Your task to perform on an android device: open device folders in google photos Image 0: 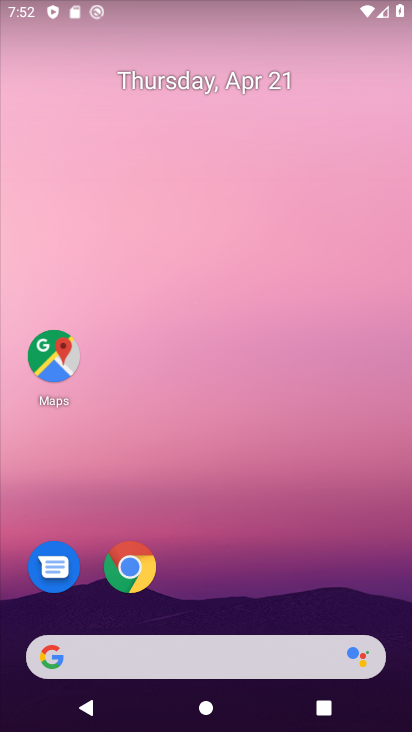
Step 0: drag from (210, 388) to (219, 132)
Your task to perform on an android device: open device folders in google photos Image 1: 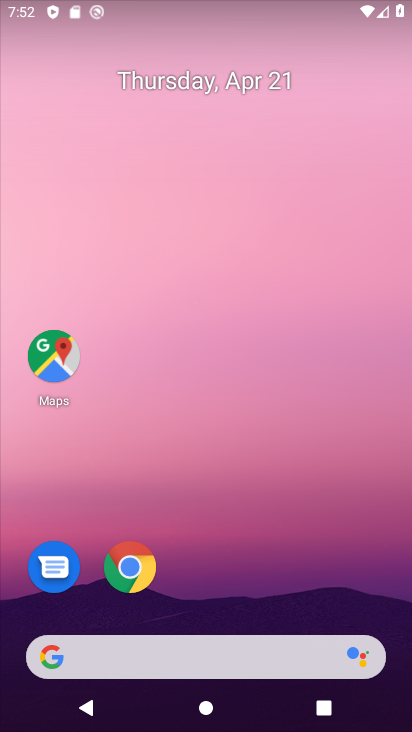
Step 1: drag from (192, 617) to (234, 50)
Your task to perform on an android device: open device folders in google photos Image 2: 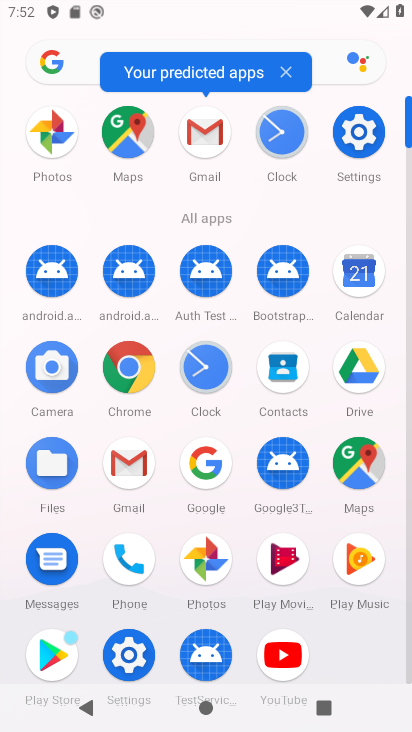
Step 2: click (54, 145)
Your task to perform on an android device: open device folders in google photos Image 3: 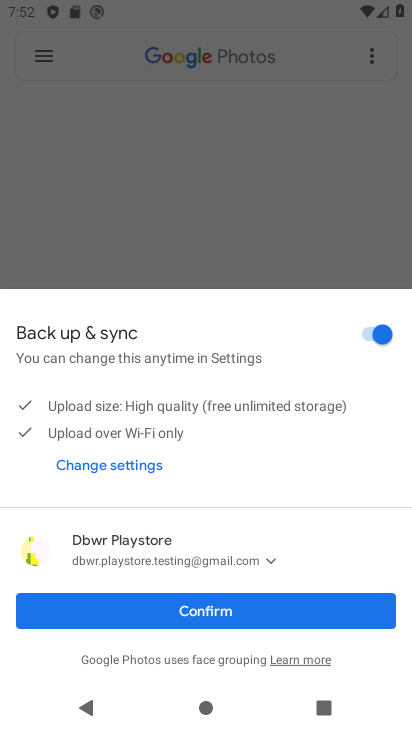
Step 3: click (231, 613)
Your task to perform on an android device: open device folders in google photos Image 4: 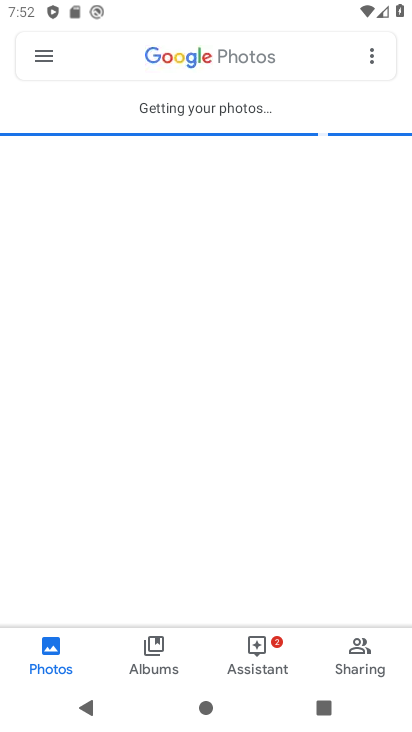
Step 4: click (38, 60)
Your task to perform on an android device: open device folders in google photos Image 5: 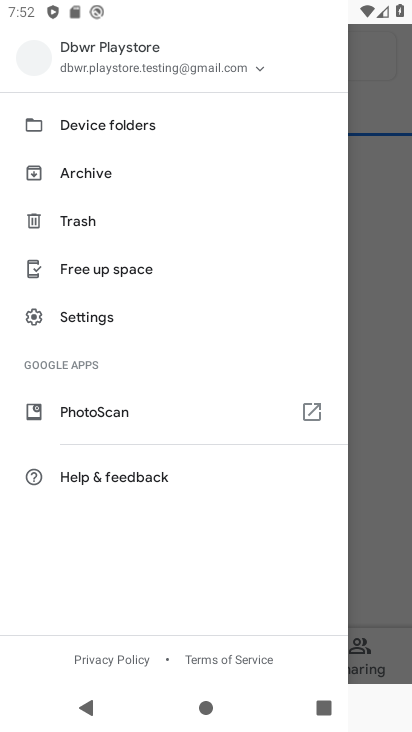
Step 5: click (60, 117)
Your task to perform on an android device: open device folders in google photos Image 6: 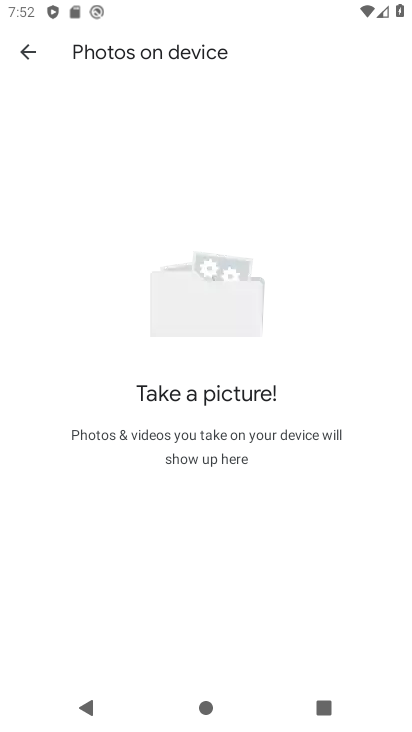
Step 6: task complete